Your task to perform on an android device: Open network settings Image 0: 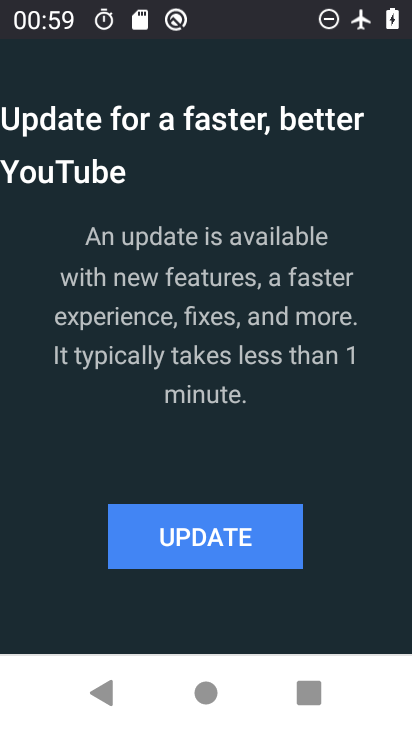
Step 0: press home button
Your task to perform on an android device: Open network settings Image 1: 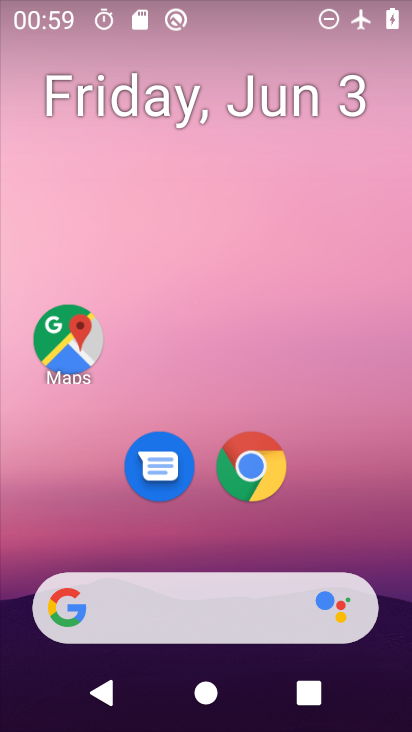
Step 1: drag from (195, 508) to (198, 246)
Your task to perform on an android device: Open network settings Image 2: 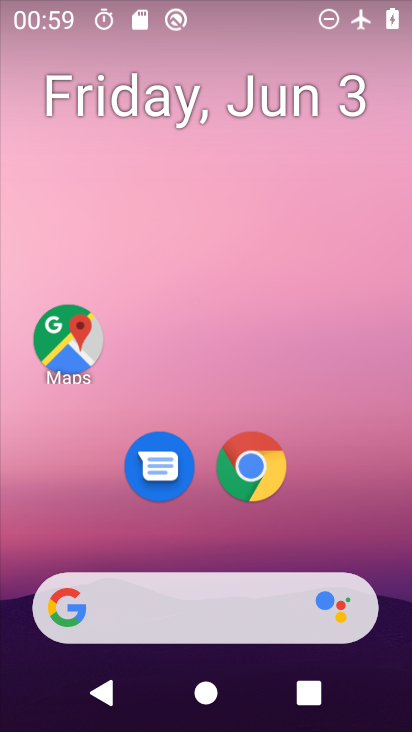
Step 2: drag from (194, 545) to (195, 238)
Your task to perform on an android device: Open network settings Image 3: 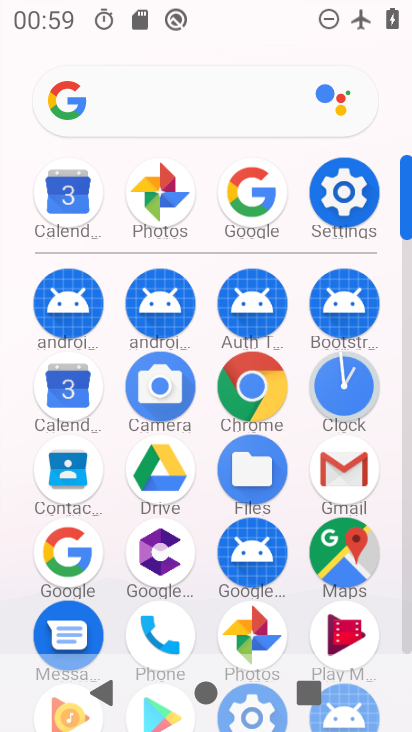
Step 3: click (326, 210)
Your task to perform on an android device: Open network settings Image 4: 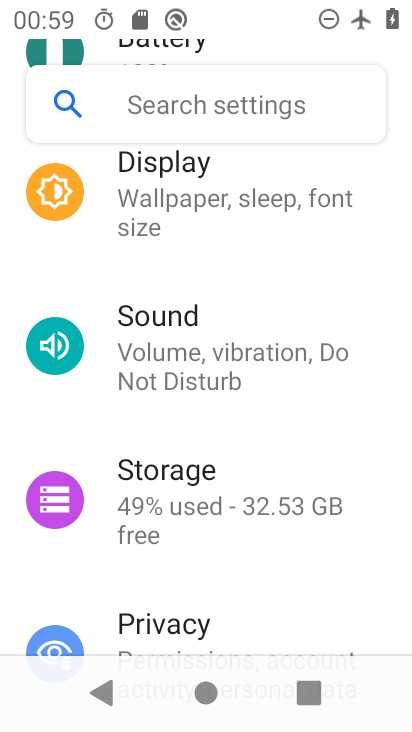
Step 4: drag from (209, 184) to (201, 461)
Your task to perform on an android device: Open network settings Image 5: 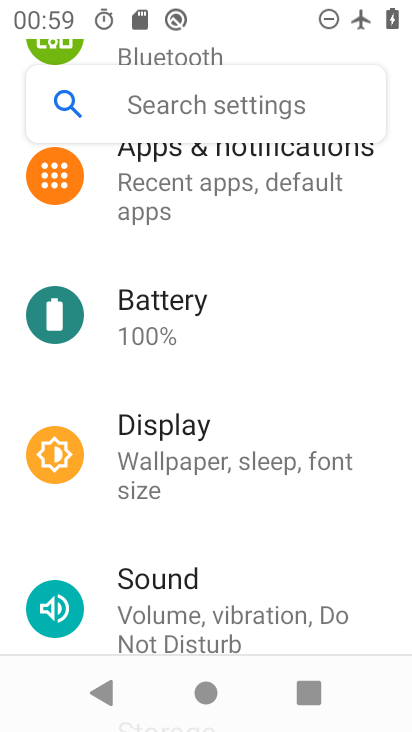
Step 5: drag from (200, 299) to (209, 559)
Your task to perform on an android device: Open network settings Image 6: 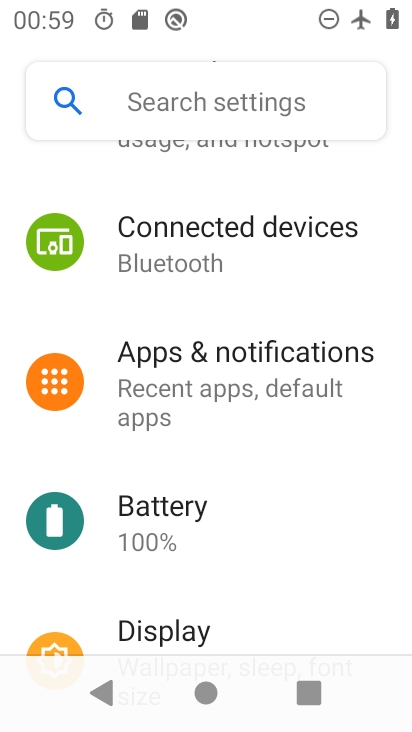
Step 6: drag from (227, 263) to (230, 489)
Your task to perform on an android device: Open network settings Image 7: 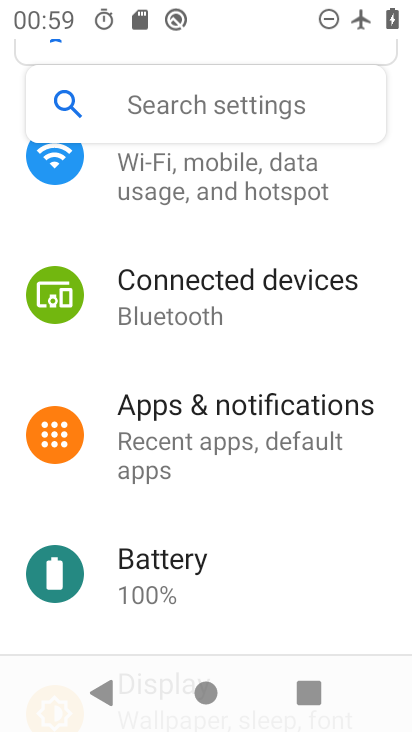
Step 7: drag from (215, 258) to (228, 487)
Your task to perform on an android device: Open network settings Image 8: 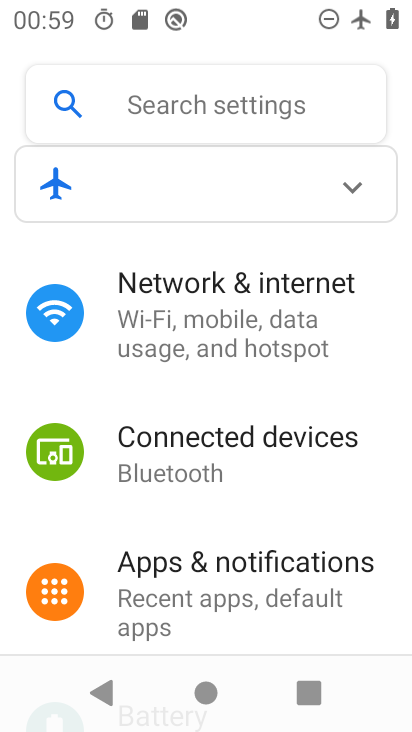
Step 8: click (209, 320)
Your task to perform on an android device: Open network settings Image 9: 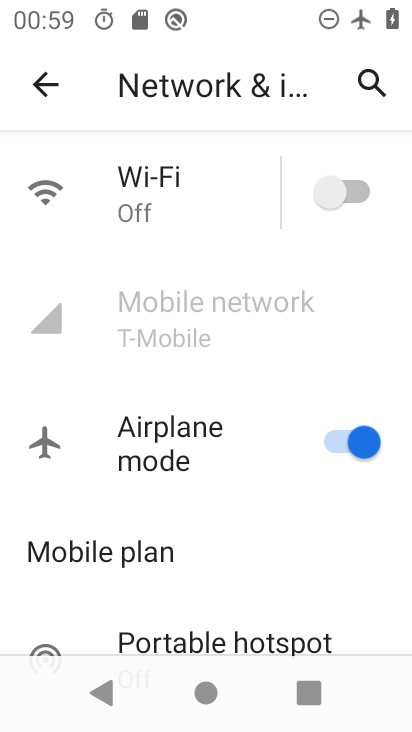
Step 9: click (158, 320)
Your task to perform on an android device: Open network settings Image 10: 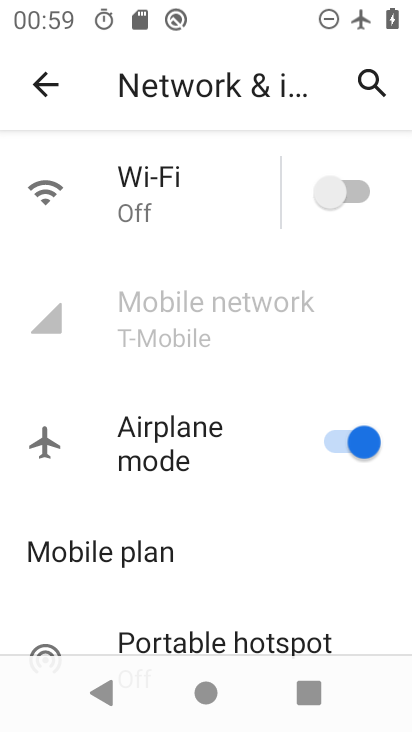
Step 10: click (202, 355)
Your task to perform on an android device: Open network settings Image 11: 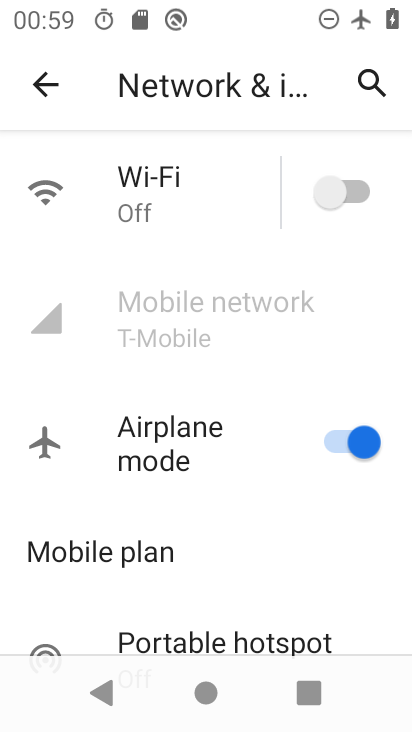
Step 11: task complete